Your task to perform on an android device: turn off wifi Image 0: 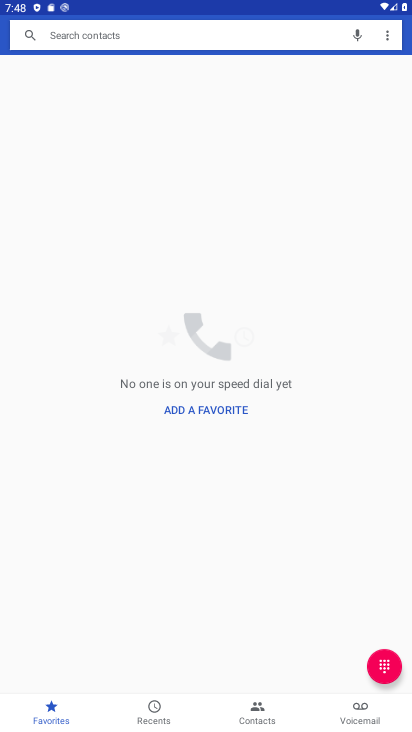
Step 0: press home button
Your task to perform on an android device: turn off wifi Image 1: 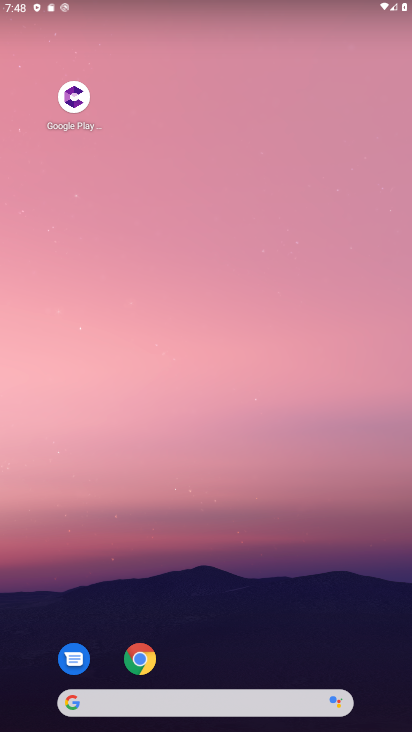
Step 1: drag from (230, 619) to (230, 236)
Your task to perform on an android device: turn off wifi Image 2: 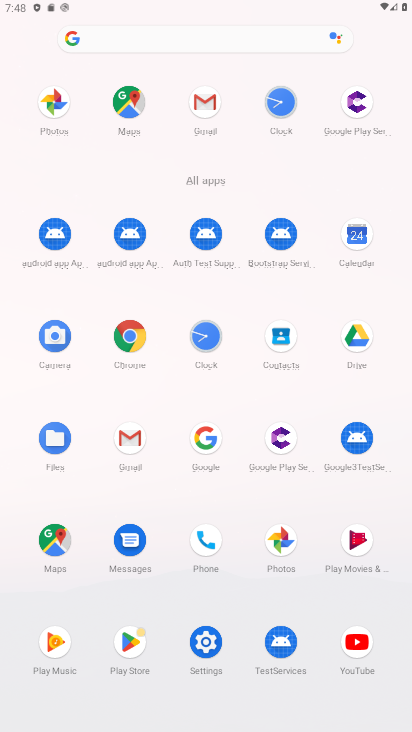
Step 2: click (206, 650)
Your task to perform on an android device: turn off wifi Image 3: 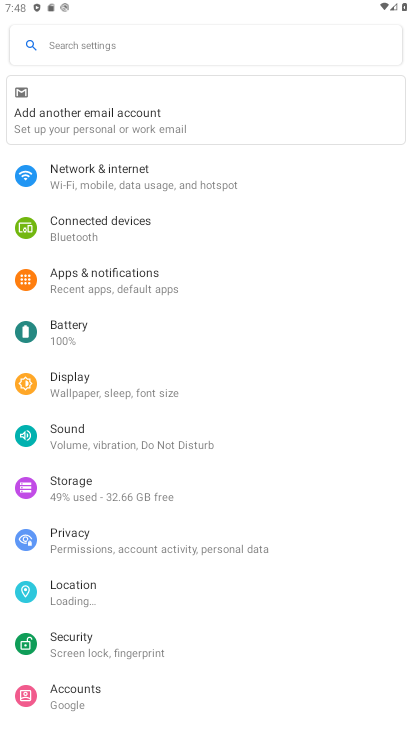
Step 3: click (102, 183)
Your task to perform on an android device: turn off wifi Image 4: 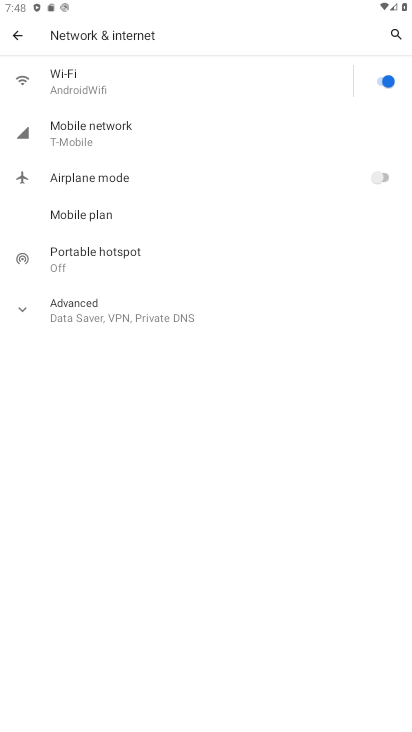
Step 4: click (386, 82)
Your task to perform on an android device: turn off wifi Image 5: 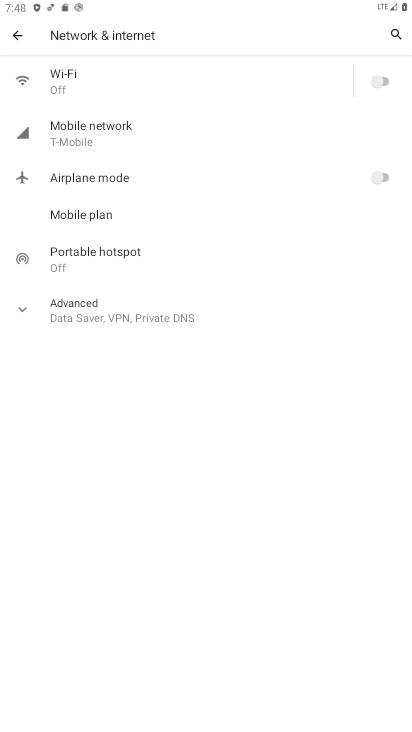
Step 5: task complete